Your task to perform on an android device: What is the news today? Image 0: 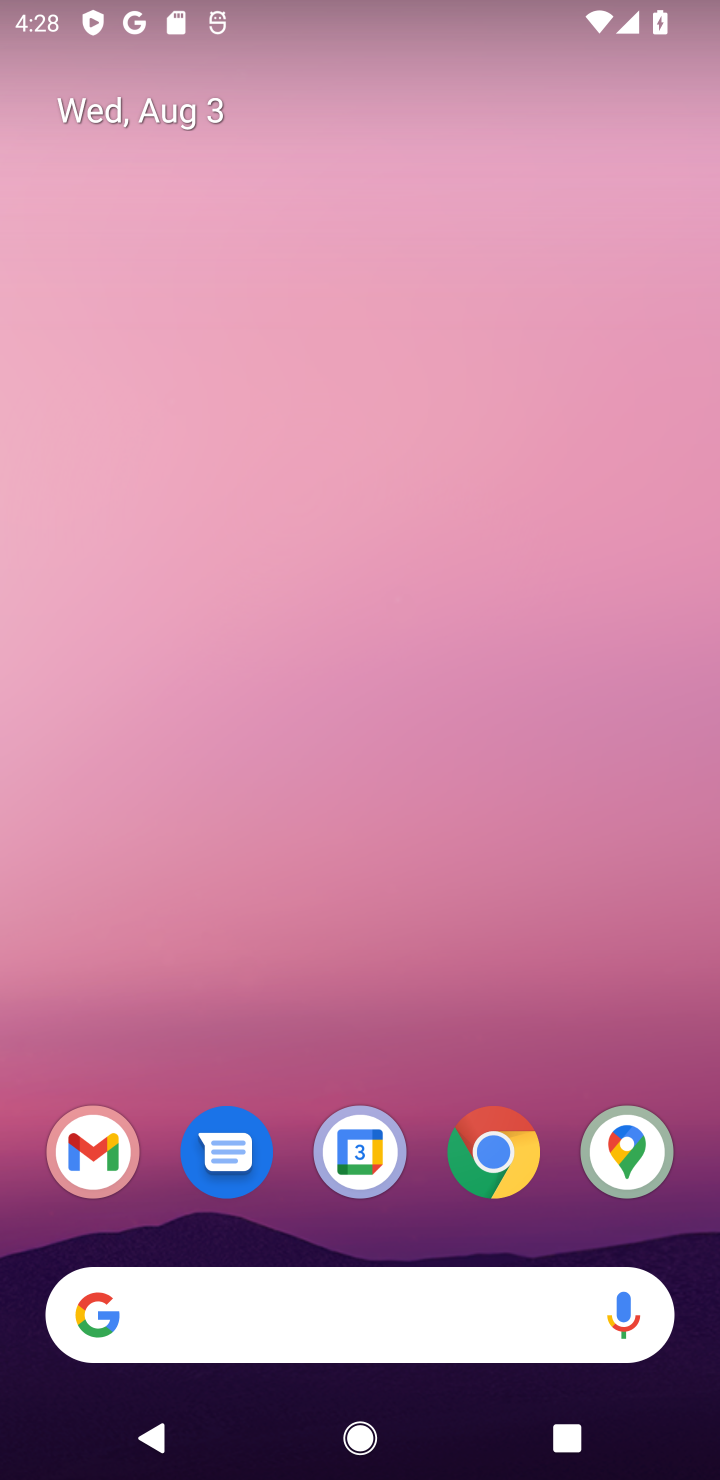
Step 0: drag from (354, 1323) to (323, 244)
Your task to perform on an android device: What is the news today? Image 1: 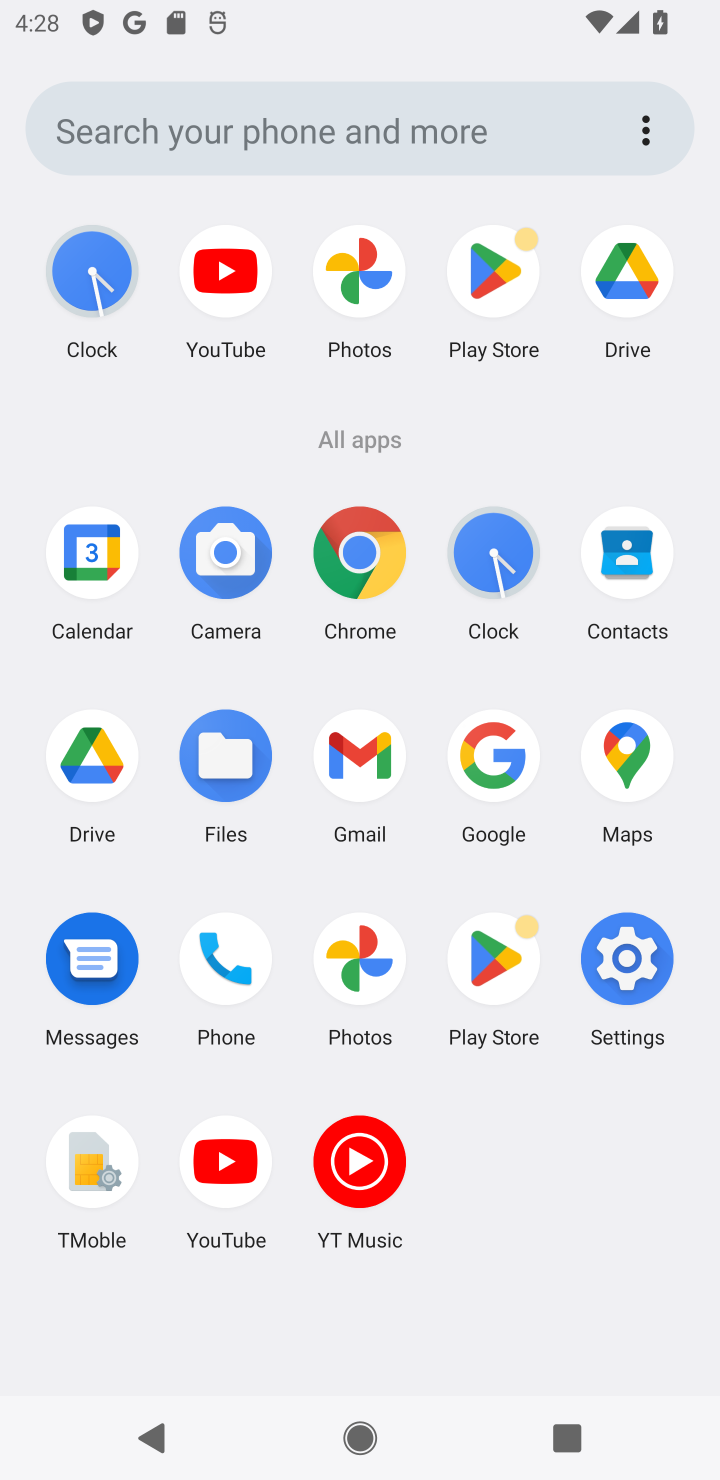
Step 1: click (485, 813)
Your task to perform on an android device: What is the news today? Image 2: 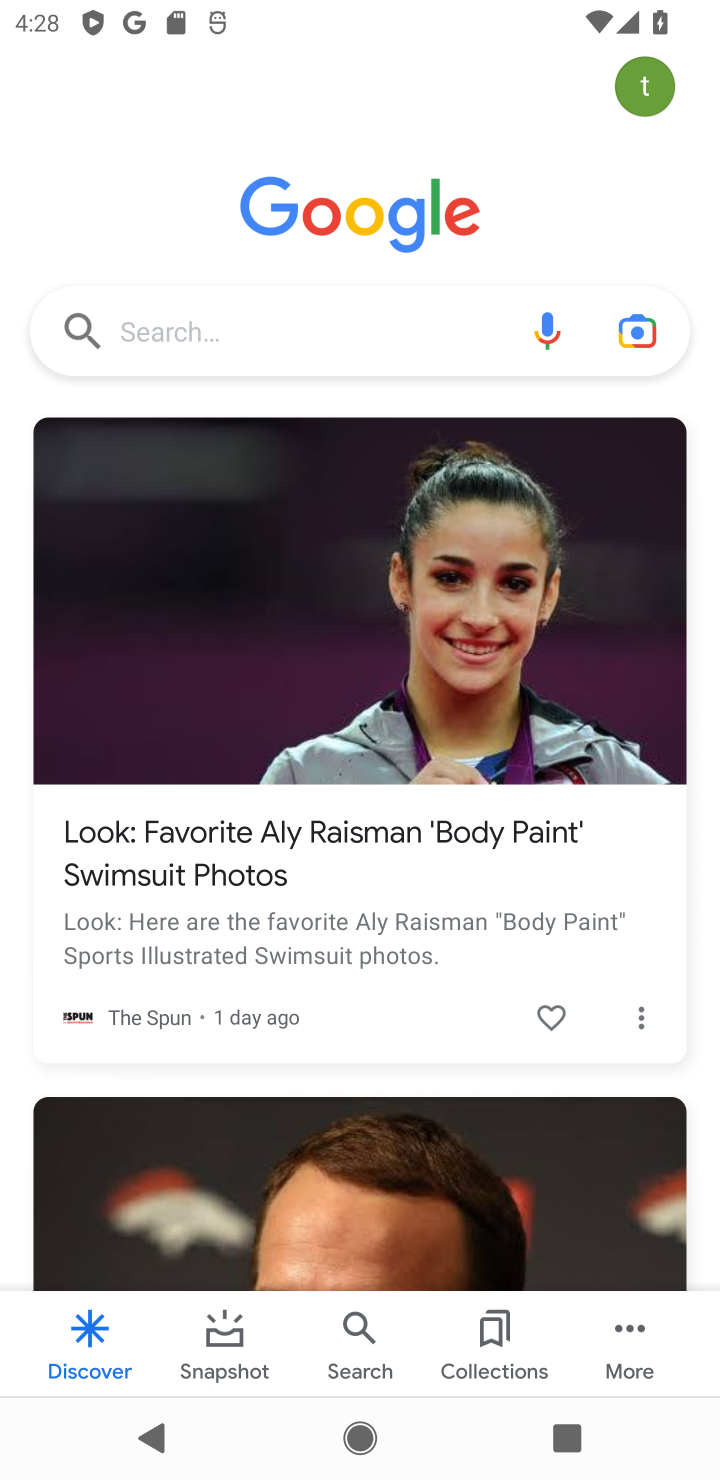
Step 2: task complete